Your task to perform on an android device: Check the weather Image 0: 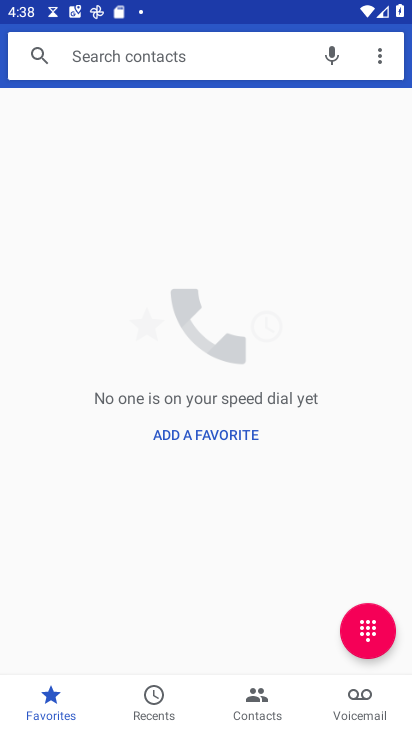
Step 0: press home button
Your task to perform on an android device: Check the weather Image 1: 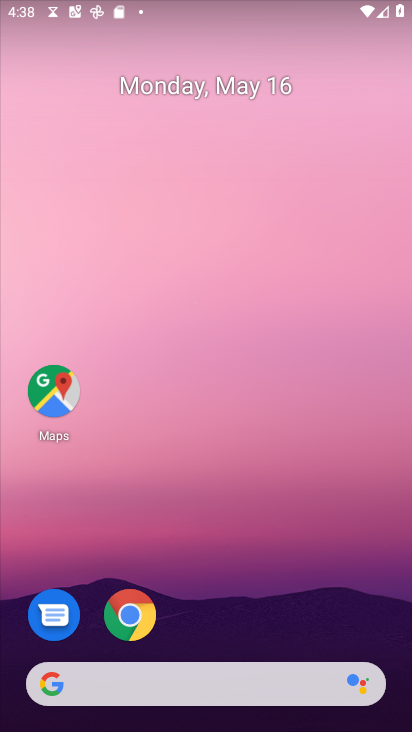
Step 1: drag from (216, 611) to (309, 79)
Your task to perform on an android device: Check the weather Image 2: 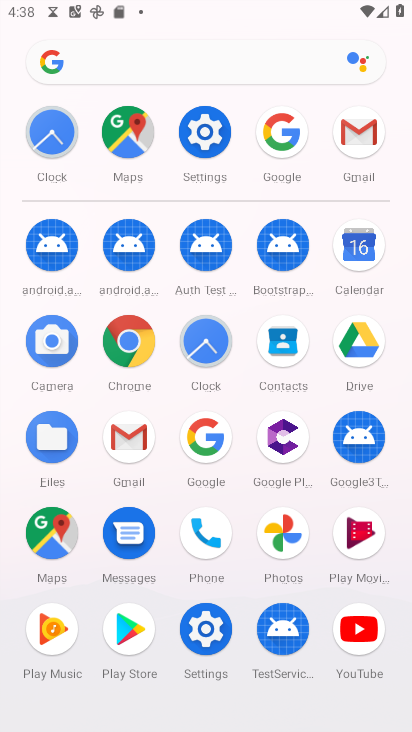
Step 2: click (204, 446)
Your task to perform on an android device: Check the weather Image 3: 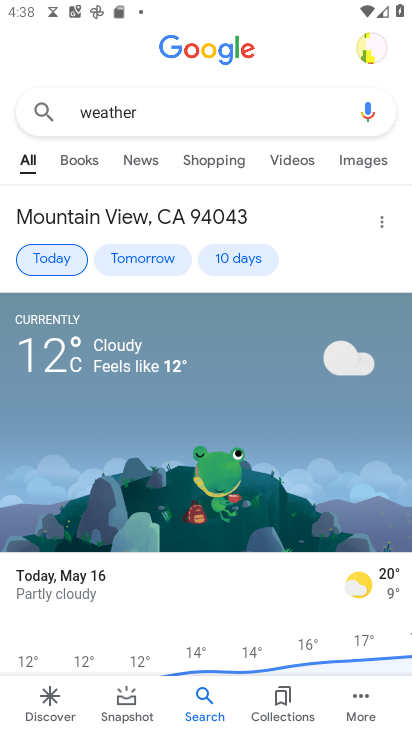
Step 3: task complete